Your task to perform on an android device: allow cookies in the chrome app Image 0: 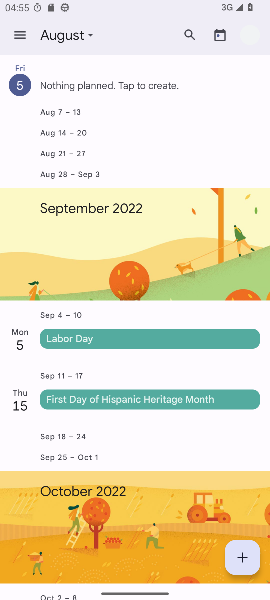
Step 0: press home button
Your task to perform on an android device: allow cookies in the chrome app Image 1: 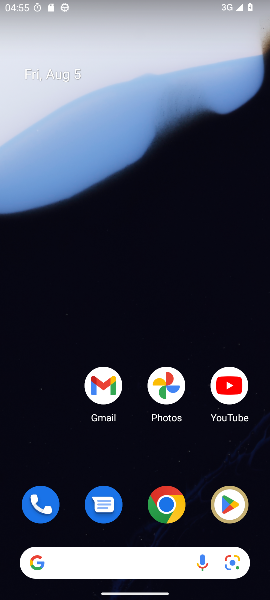
Step 1: click (170, 502)
Your task to perform on an android device: allow cookies in the chrome app Image 2: 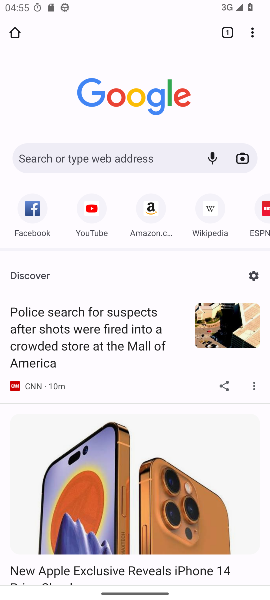
Step 2: click (255, 31)
Your task to perform on an android device: allow cookies in the chrome app Image 3: 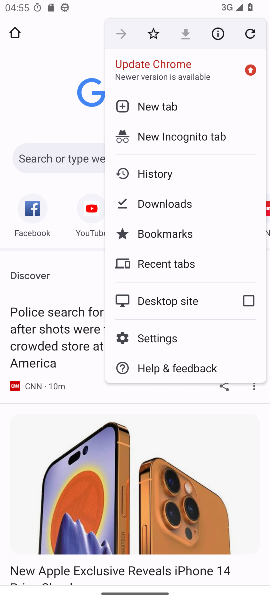
Step 3: click (140, 338)
Your task to perform on an android device: allow cookies in the chrome app Image 4: 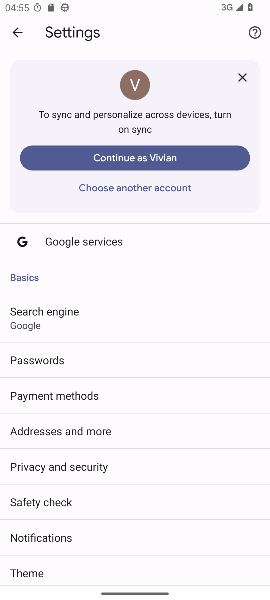
Step 4: drag from (194, 341) to (229, 77)
Your task to perform on an android device: allow cookies in the chrome app Image 5: 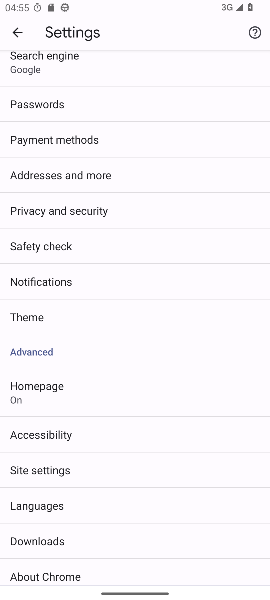
Step 5: click (52, 472)
Your task to perform on an android device: allow cookies in the chrome app Image 6: 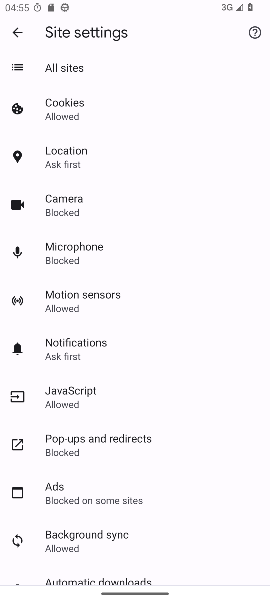
Step 6: click (76, 106)
Your task to perform on an android device: allow cookies in the chrome app Image 7: 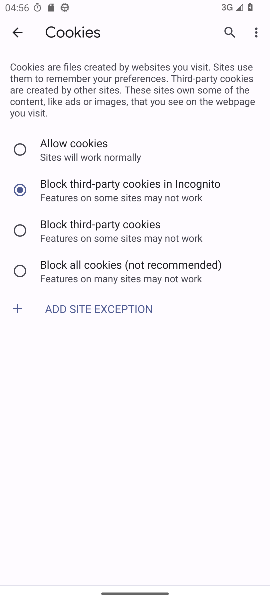
Step 7: click (28, 152)
Your task to perform on an android device: allow cookies in the chrome app Image 8: 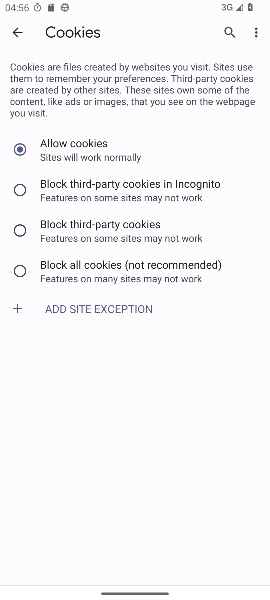
Step 8: task complete